Your task to perform on an android device: Check the news Image 0: 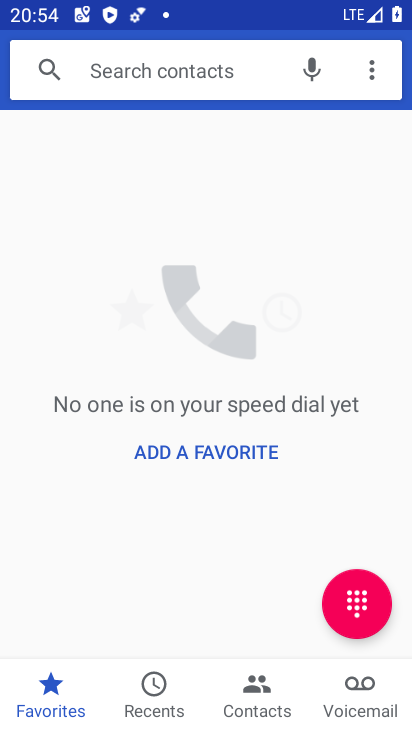
Step 0: press home button
Your task to perform on an android device: Check the news Image 1: 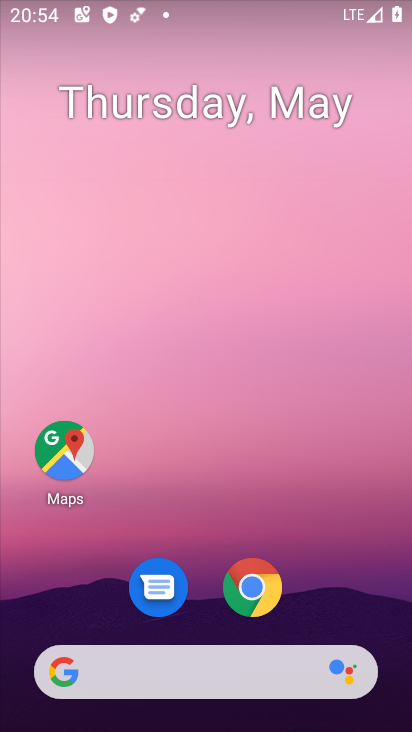
Step 1: click (162, 677)
Your task to perform on an android device: Check the news Image 2: 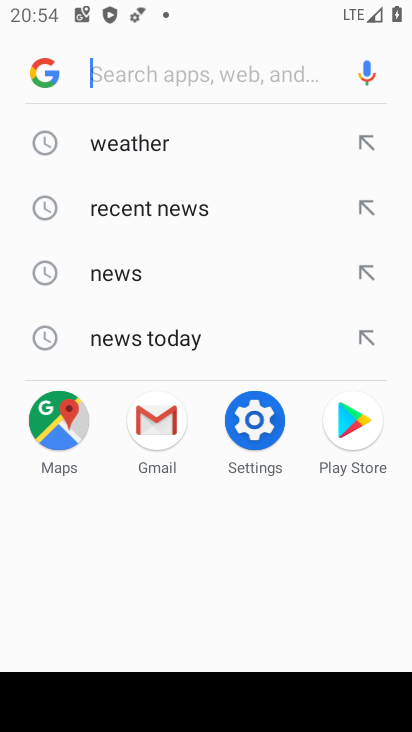
Step 2: click (160, 272)
Your task to perform on an android device: Check the news Image 3: 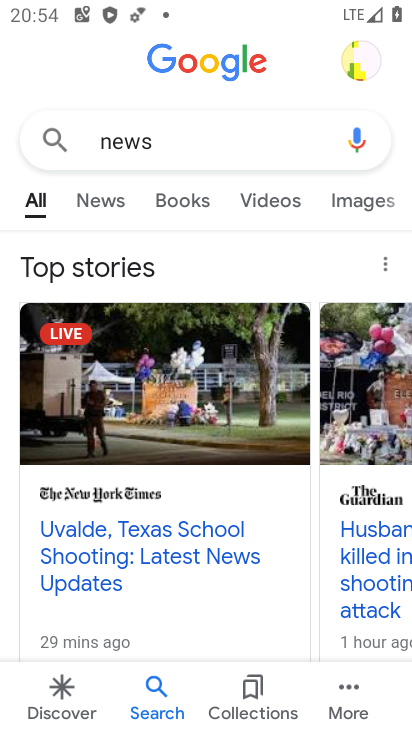
Step 3: task complete